Your task to perform on an android device: Open Google Image 0: 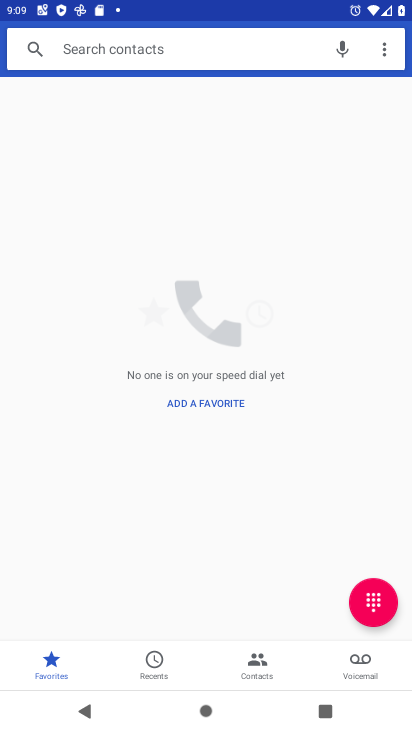
Step 0: press home button
Your task to perform on an android device: Open Google Image 1: 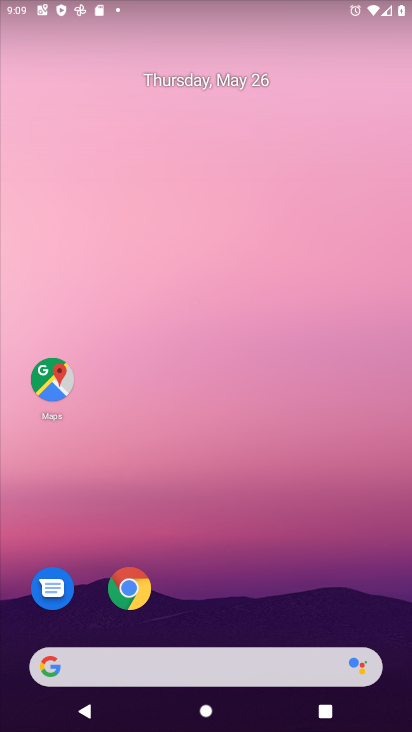
Step 1: drag from (393, 656) to (230, 61)
Your task to perform on an android device: Open Google Image 2: 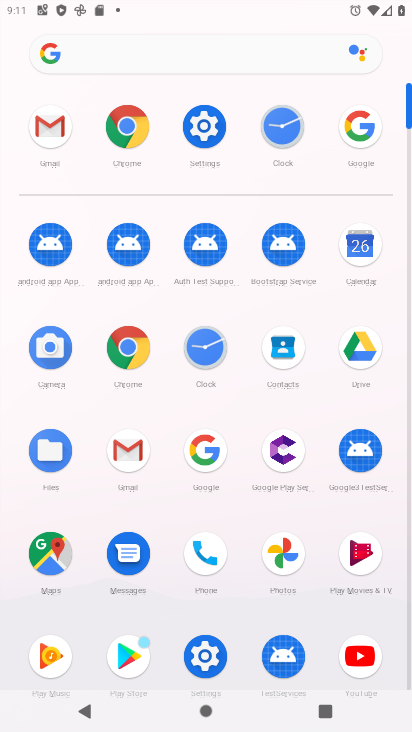
Step 2: click (207, 462)
Your task to perform on an android device: Open Google Image 3: 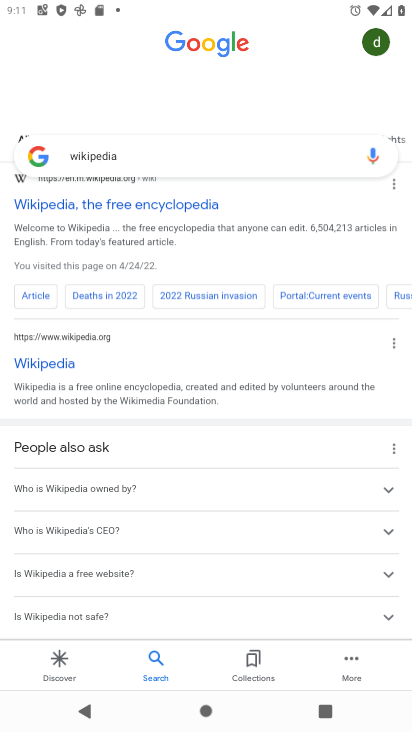
Step 3: task complete